Your task to perform on an android device: Open Youtube and go to "Your channel" Image 0: 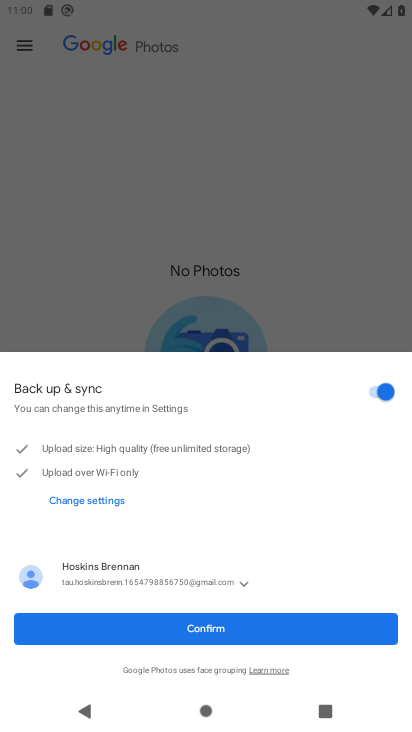
Step 0: press home button
Your task to perform on an android device: Open Youtube and go to "Your channel" Image 1: 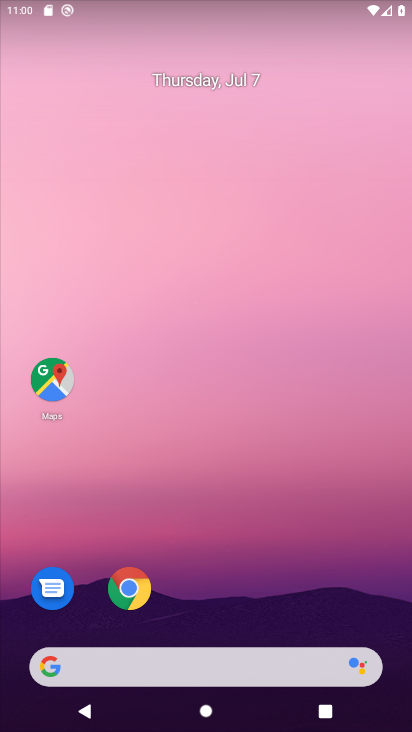
Step 1: drag from (162, 656) to (289, 9)
Your task to perform on an android device: Open Youtube and go to "Your channel" Image 2: 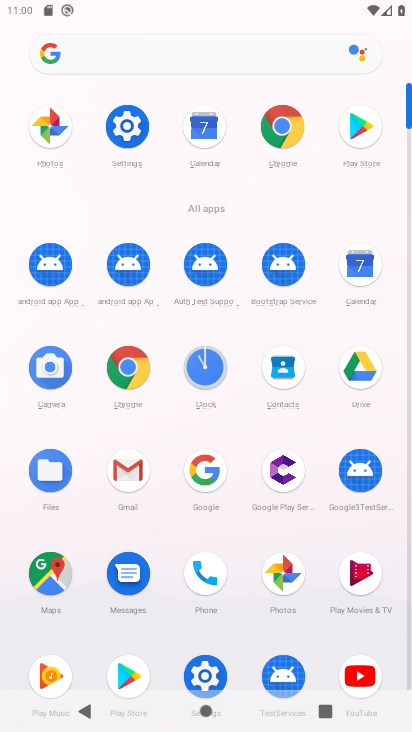
Step 2: click (357, 667)
Your task to perform on an android device: Open Youtube and go to "Your channel" Image 3: 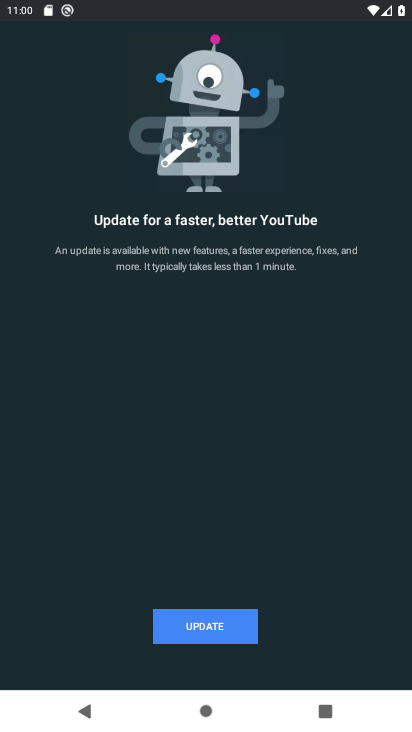
Step 3: click (220, 617)
Your task to perform on an android device: Open Youtube and go to "Your channel" Image 4: 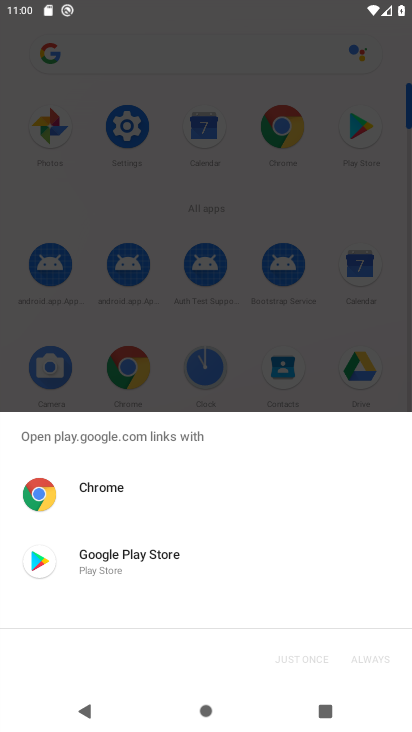
Step 4: click (132, 560)
Your task to perform on an android device: Open Youtube and go to "Your channel" Image 5: 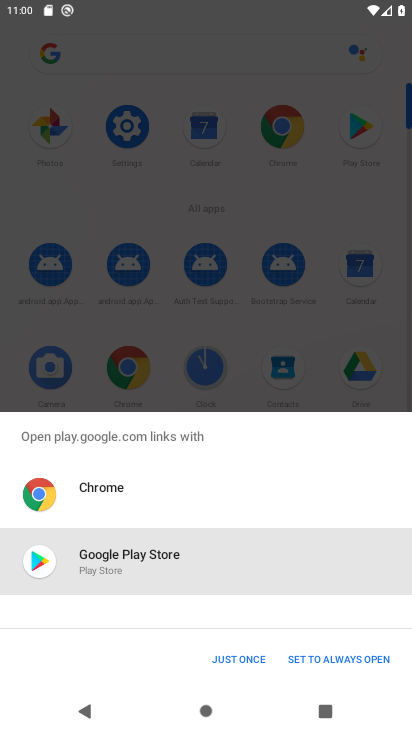
Step 5: click (248, 660)
Your task to perform on an android device: Open Youtube and go to "Your channel" Image 6: 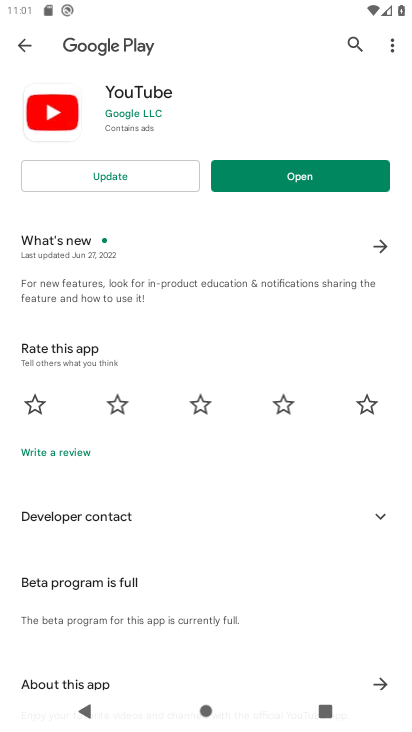
Step 6: click (104, 169)
Your task to perform on an android device: Open Youtube and go to "Your channel" Image 7: 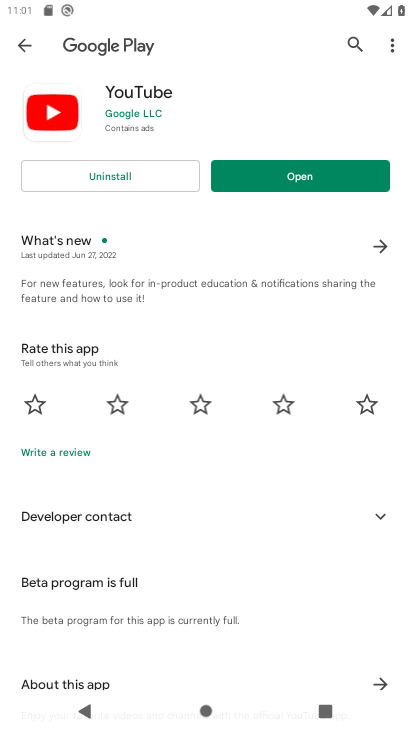
Step 7: click (284, 176)
Your task to perform on an android device: Open Youtube and go to "Your channel" Image 8: 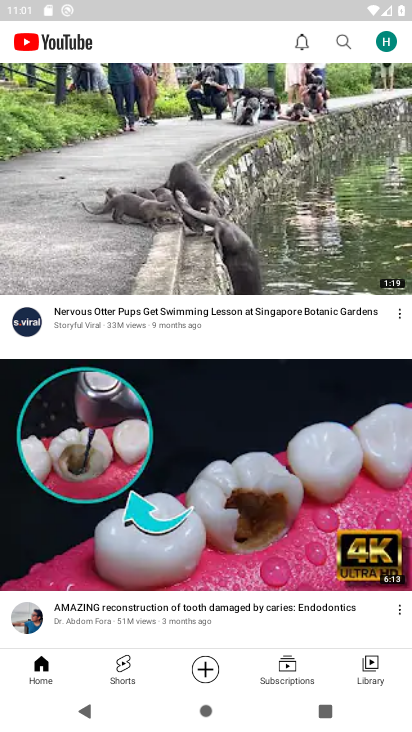
Step 8: click (387, 45)
Your task to perform on an android device: Open Youtube and go to "Your channel" Image 9: 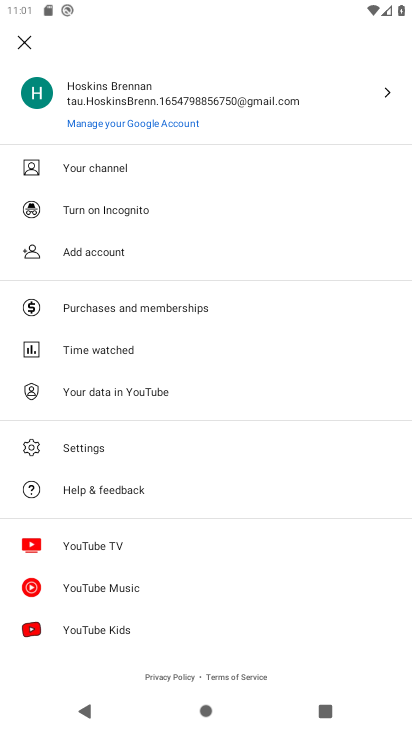
Step 9: click (109, 167)
Your task to perform on an android device: Open Youtube and go to "Your channel" Image 10: 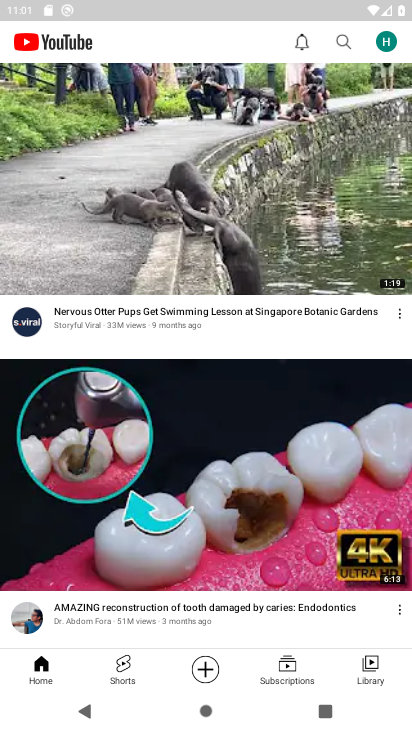
Step 10: click (383, 37)
Your task to perform on an android device: Open Youtube and go to "Your channel" Image 11: 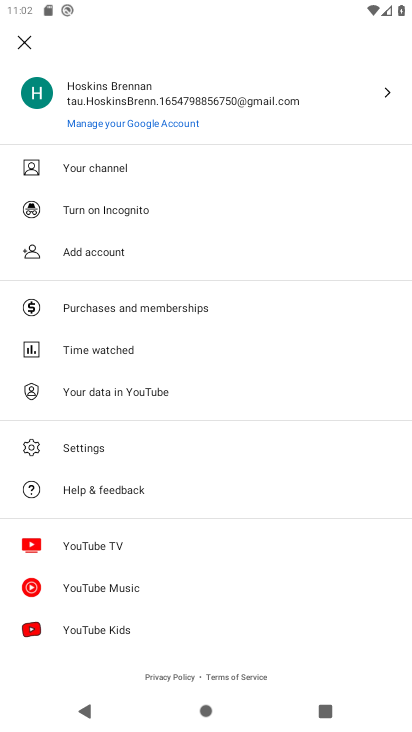
Step 11: click (97, 169)
Your task to perform on an android device: Open Youtube and go to "Your channel" Image 12: 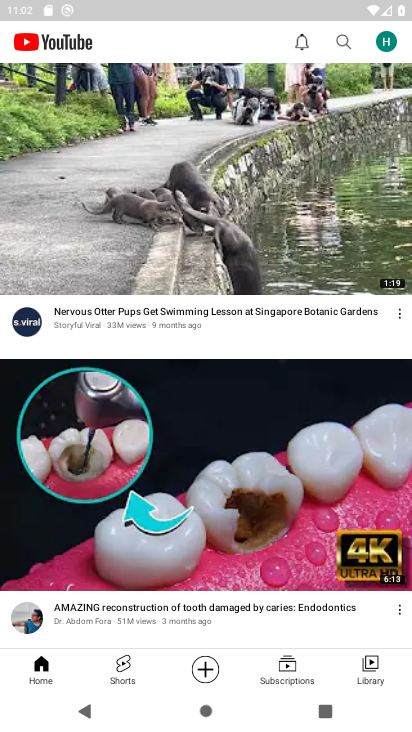
Step 12: click (386, 38)
Your task to perform on an android device: Open Youtube and go to "Your channel" Image 13: 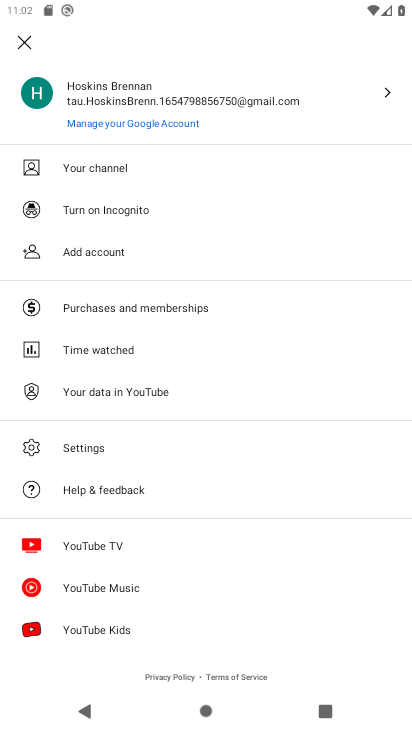
Step 13: click (70, 163)
Your task to perform on an android device: Open Youtube and go to "Your channel" Image 14: 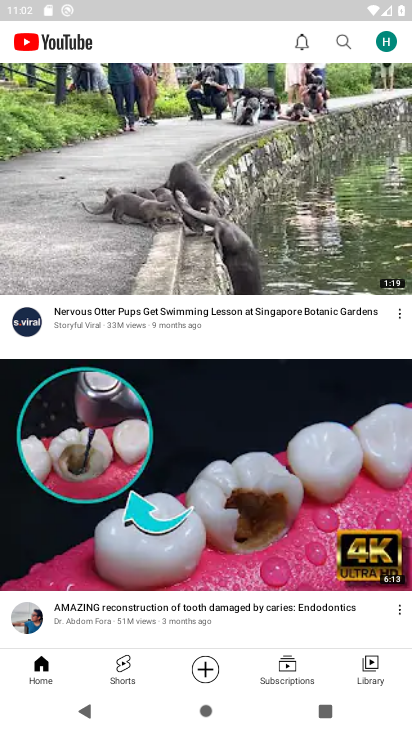
Step 14: task complete